Your task to perform on an android device: turn on location history Image 0: 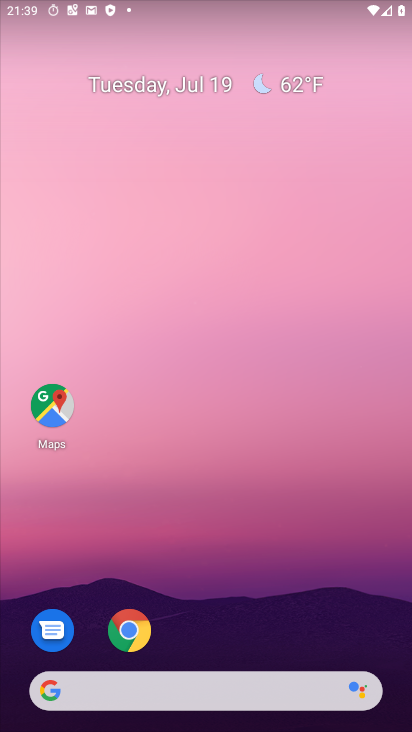
Step 0: drag from (17, 711) to (313, 157)
Your task to perform on an android device: turn on location history Image 1: 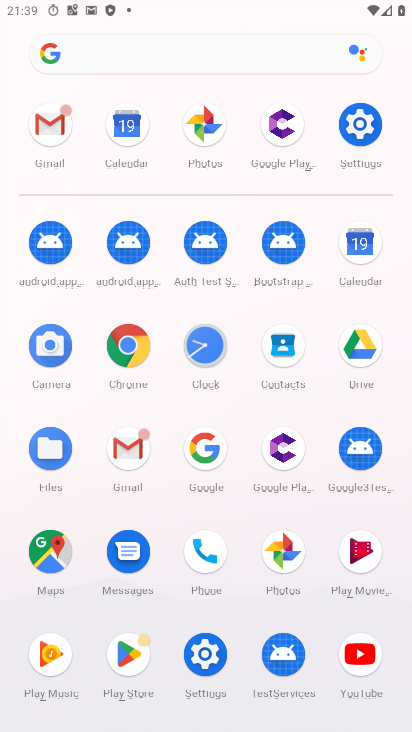
Step 1: click (208, 653)
Your task to perform on an android device: turn on location history Image 2: 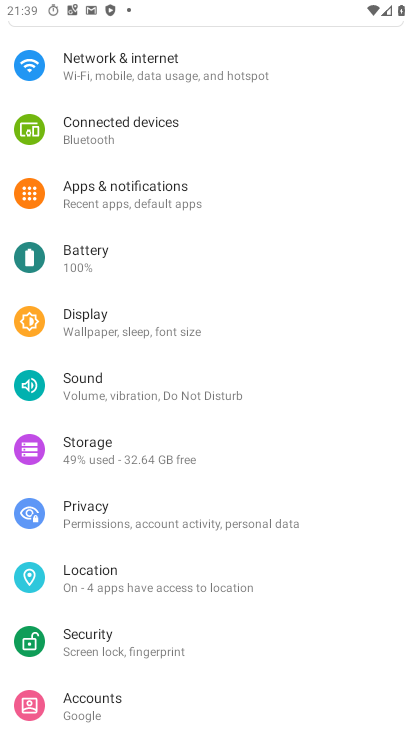
Step 2: click (100, 577)
Your task to perform on an android device: turn on location history Image 3: 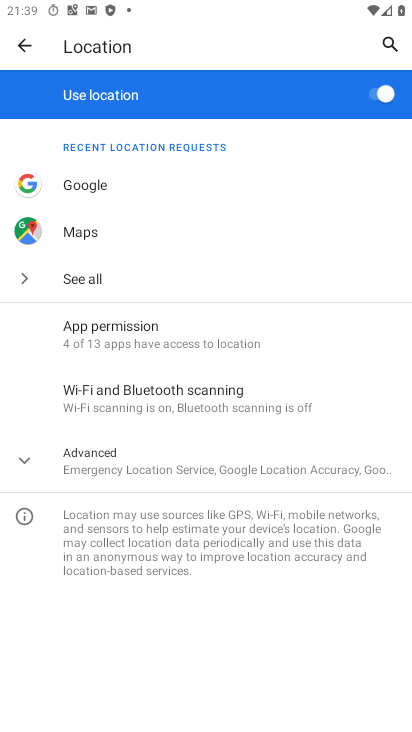
Step 3: click (102, 469)
Your task to perform on an android device: turn on location history Image 4: 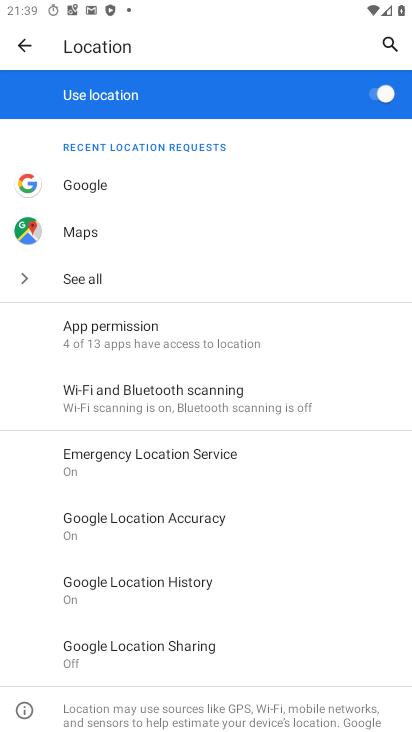
Step 4: task complete